Your task to perform on an android device: Go to privacy settings Image 0: 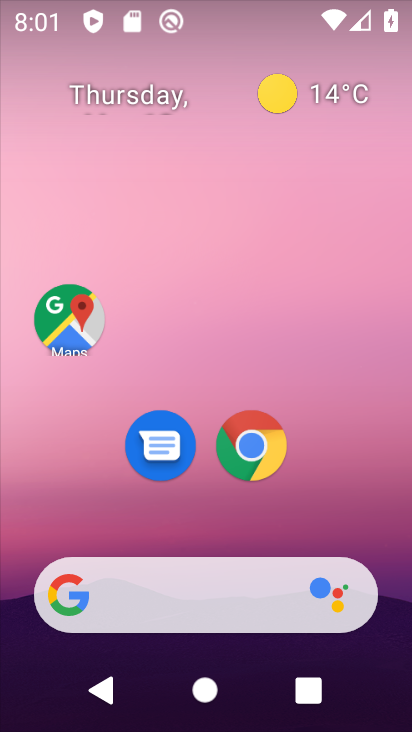
Step 0: drag from (214, 722) to (214, 80)
Your task to perform on an android device: Go to privacy settings Image 1: 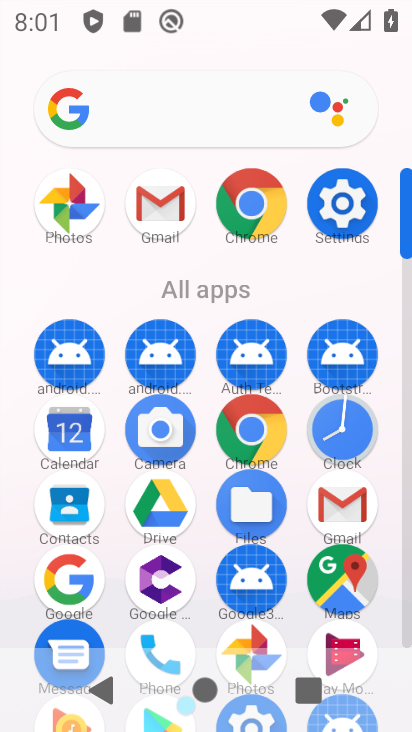
Step 1: click (345, 203)
Your task to perform on an android device: Go to privacy settings Image 2: 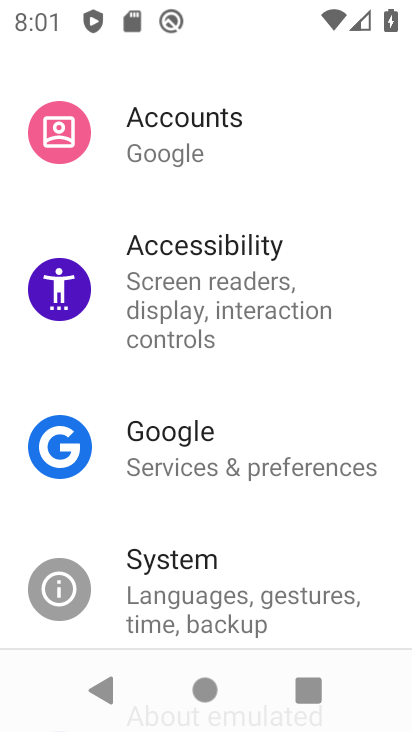
Step 2: drag from (176, 578) to (206, 251)
Your task to perform on an android device: Go to privacy settings Image 3: 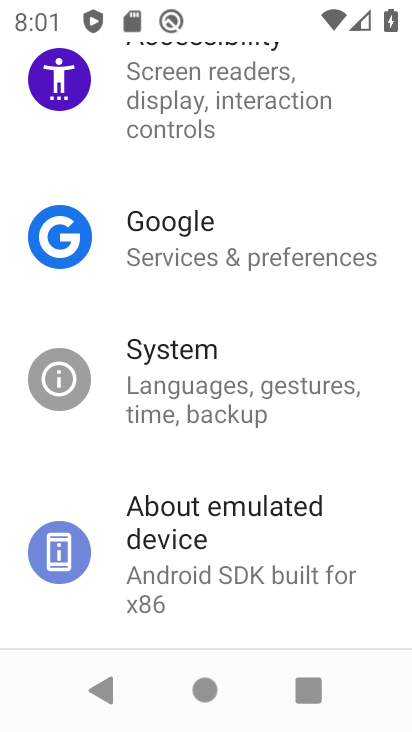
Step 3: drag from (309, 179) to (299, 532)
Your task to perform on an android device: Go to privacy settings Image 4: 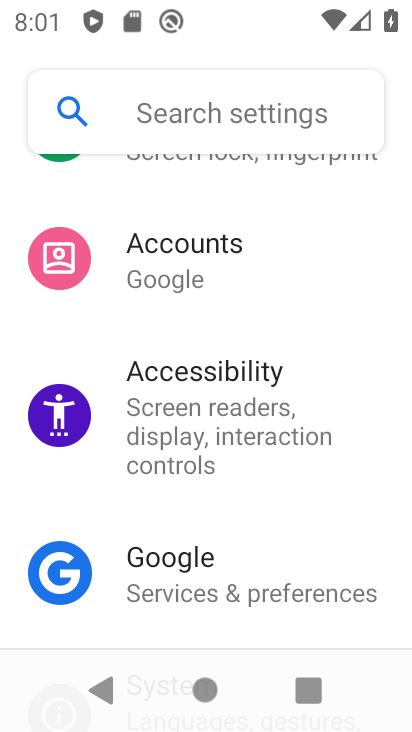
Step 4: drag from (310, 220) to (302, 495)
Your task to perform on an android device: Go to privacy settings Image 5: 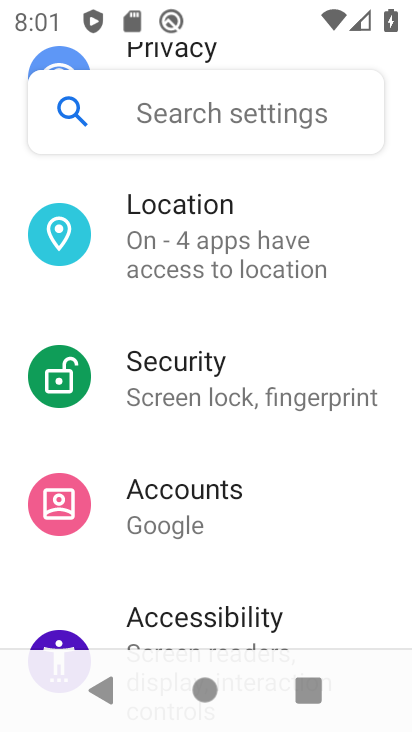
Step 5: drag from (307, 222) to (293, 573)
Your task to perform on an android device: Go to privacy settings Image 6: 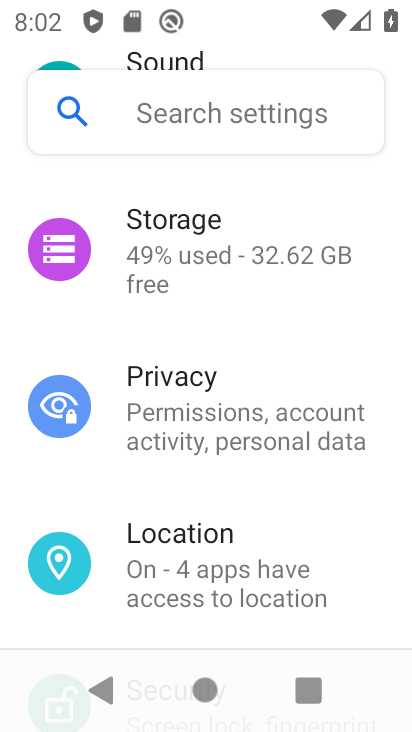
Step 6: click (167, 403)
Your task to perform on an android device: Go to privacy settings Image 7: 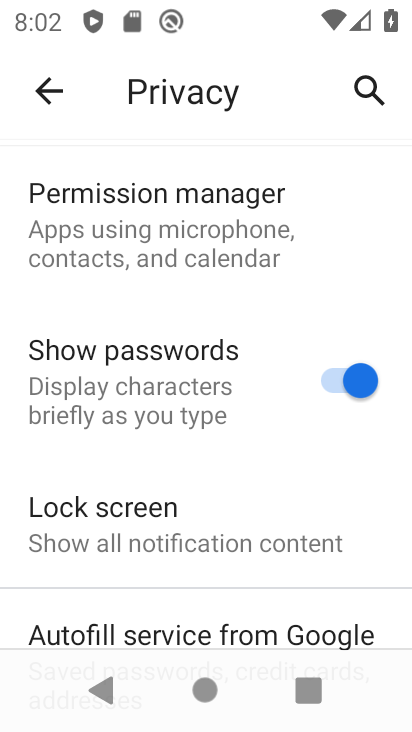
Step 7: task complete